Your task to perform on an android device: Go to battery settings Image 0: 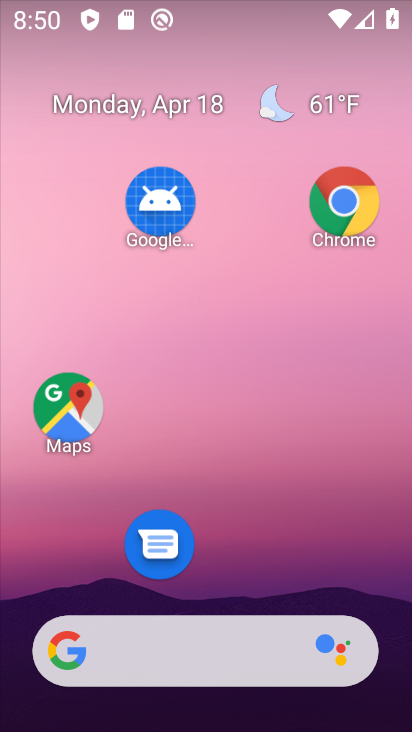
Step 0: drag from (223, 590) to (241, 53)
Your task to perform on an android device: Go to battery settings Image 1: 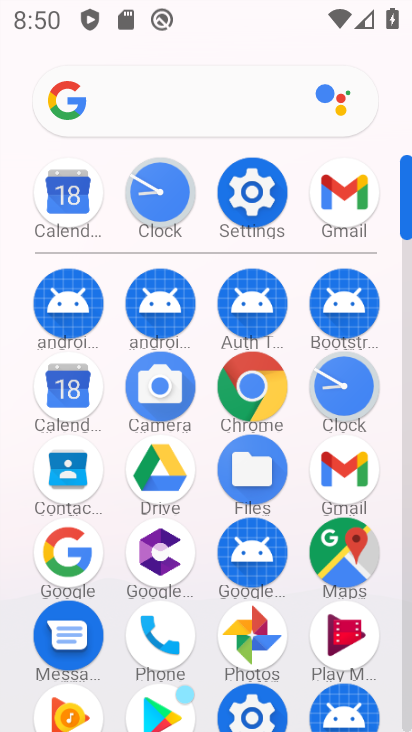
Step 1: click (259, 203)
Your task to perform on an android device: Go to battery settings Image 2: 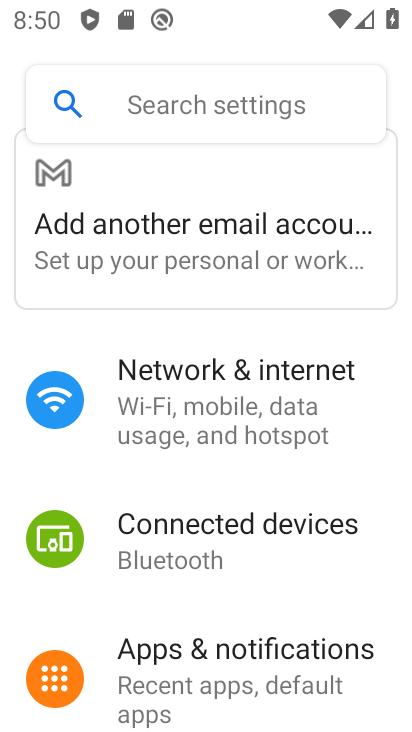
Step 2: drag from (217, 585) to (183, 215)
Your task to perform on an android device: Go to battery settings Image 3: 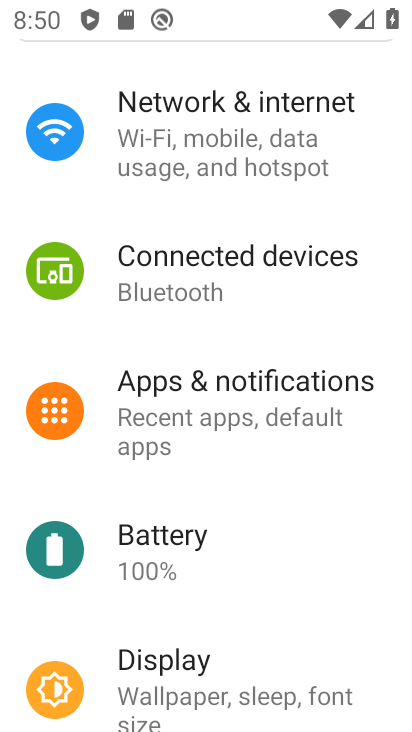
Step 3: click (165, 533)
Your task to perform on an android device: Go to battery settings Image 4: 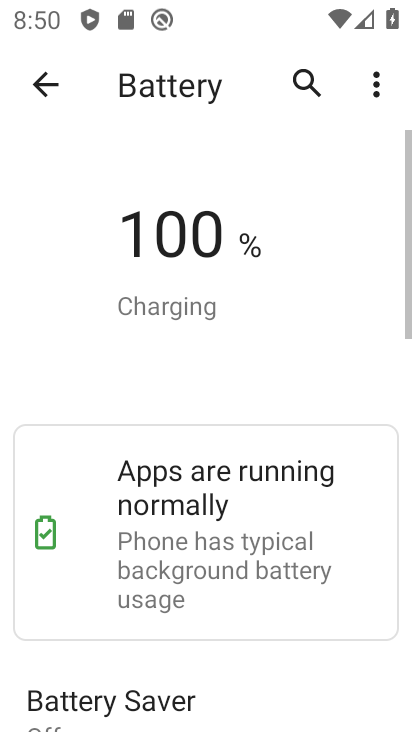
Step 4: task complete